Your task to perform on an android device: Open network settings Image 0: 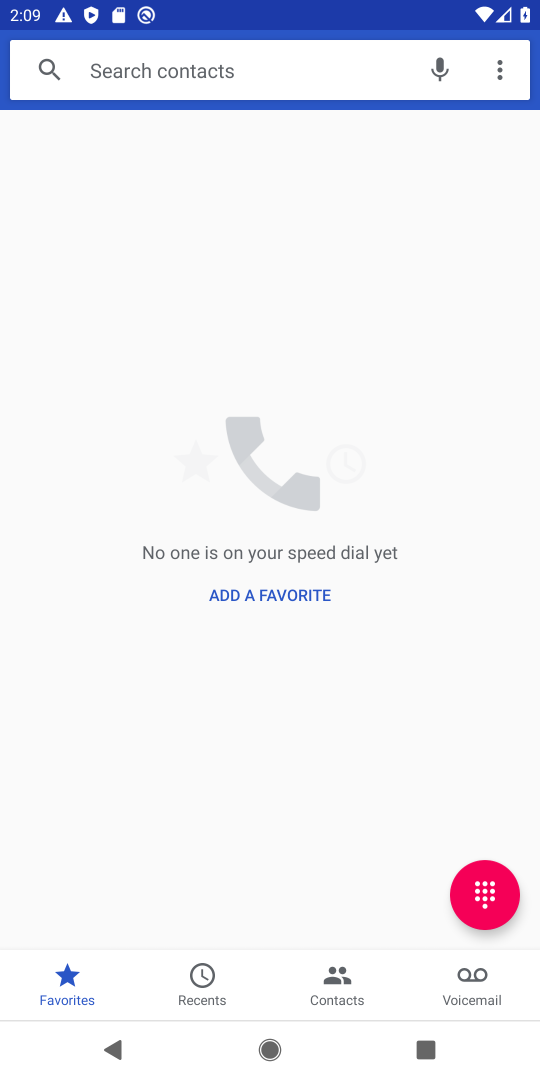
Step 0: press back button
Your task to perform on an android device: Open network settings Image 1: 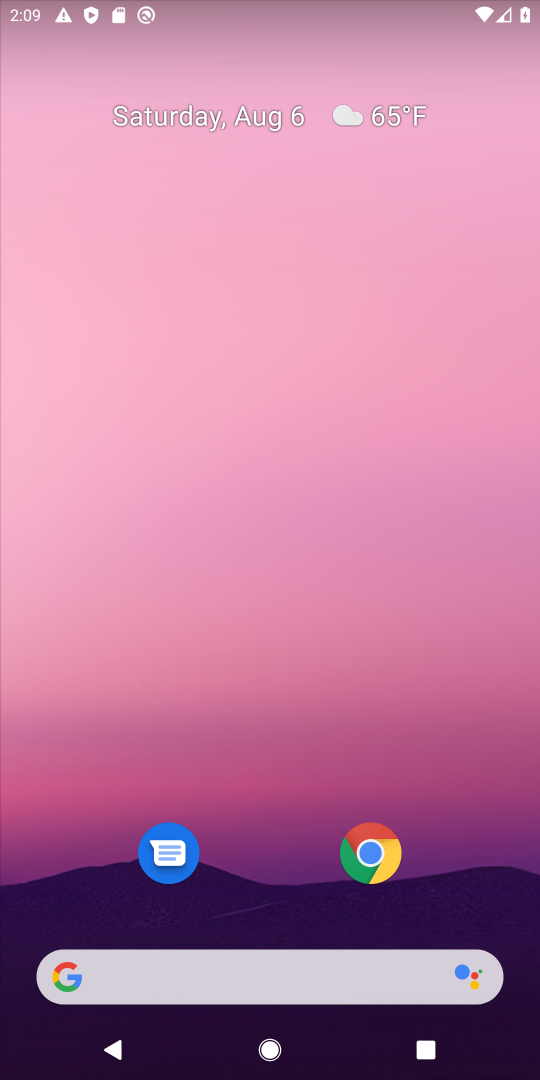
Step 1: drag from (290, 562) to (322, 206)
Your task to perform on an android device: Open network settings Image 2: 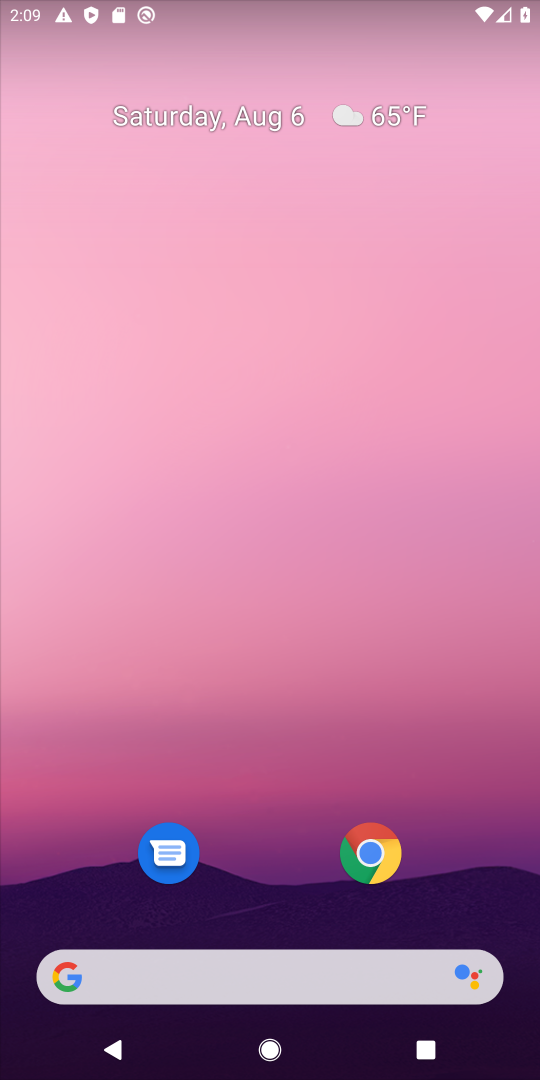
Step 2: drag from (237, 896) to (220, 36)
Your task to perform on an android device: Open network settings Image 3: 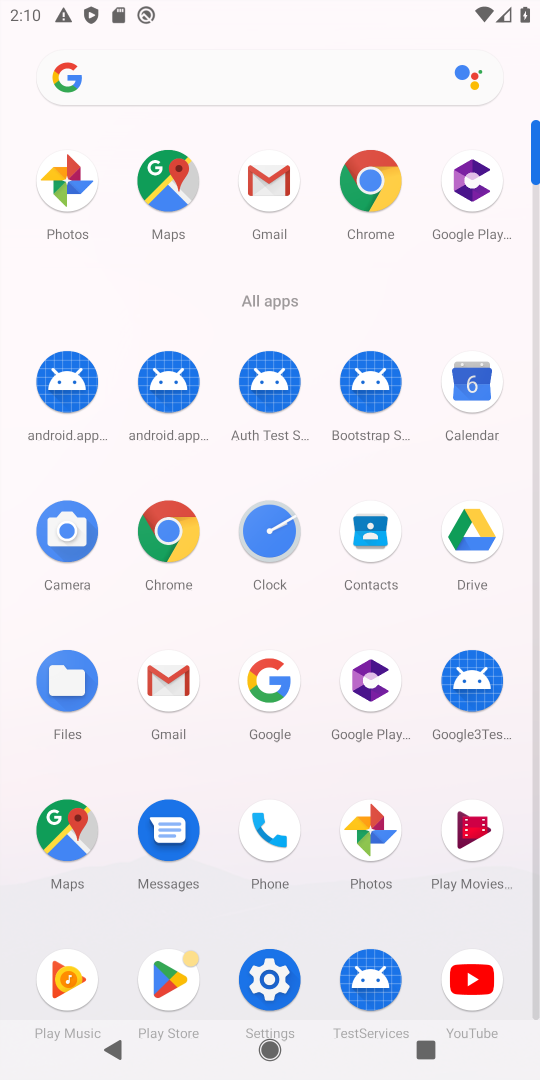
Step 3: click (284, 961)
Your task to perform on an android device: Open network settings Image 4: 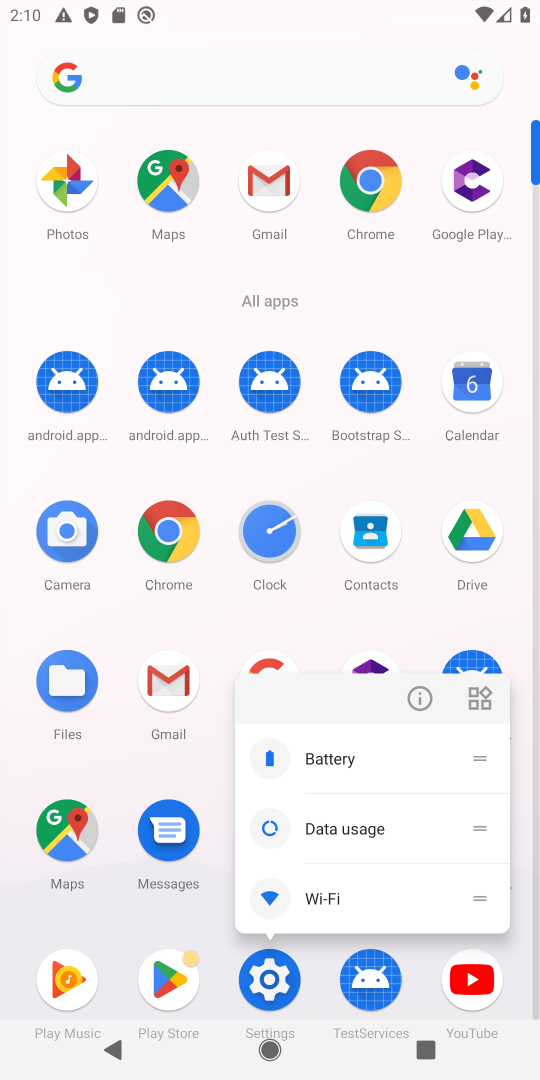
Step 4: click (256, 973)
Your task to perform on an android device: Open network settings Image 5: 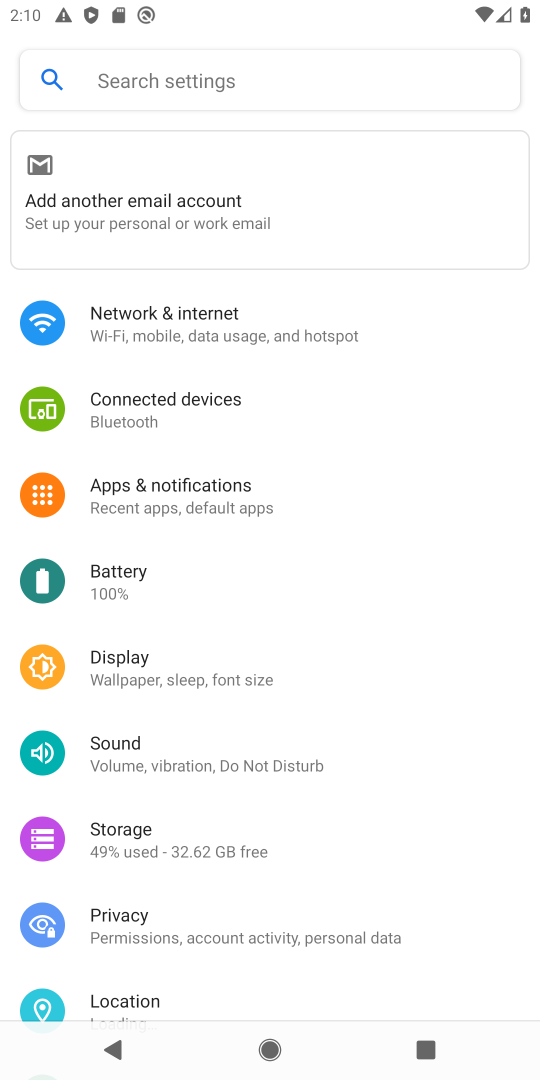
Step 5: click (219, 308)
Your task to perform on an android device: Open network settings Image 6: 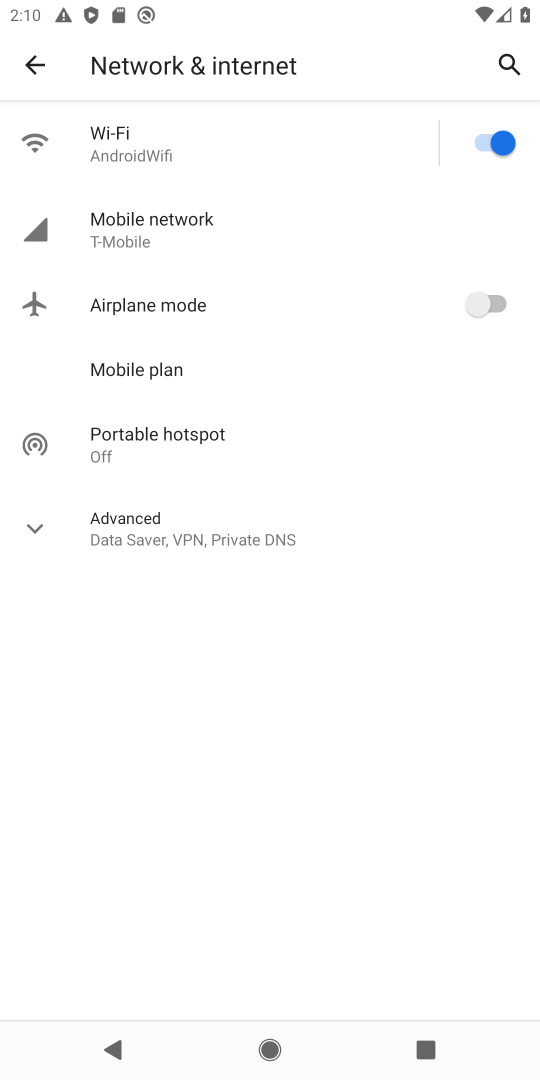
Step 6: task complete